Your task to perform on an android device: Open the Play Movies app and select the watchlist tab. Image 0: 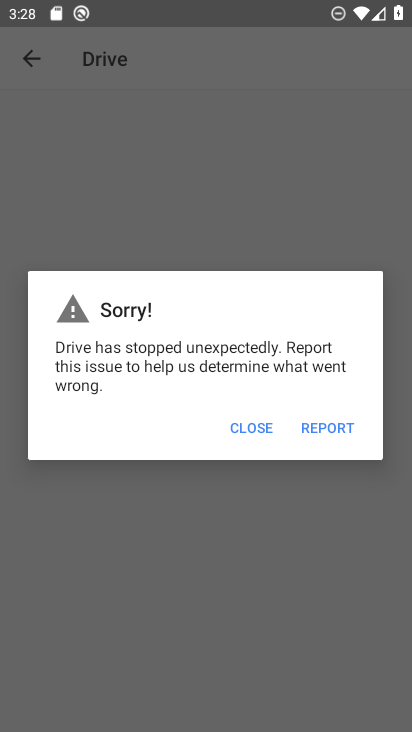
Step 0: press home button
Your task to perform on an android device: Open the Play Movies app and select the watchlist tab. Image 1: 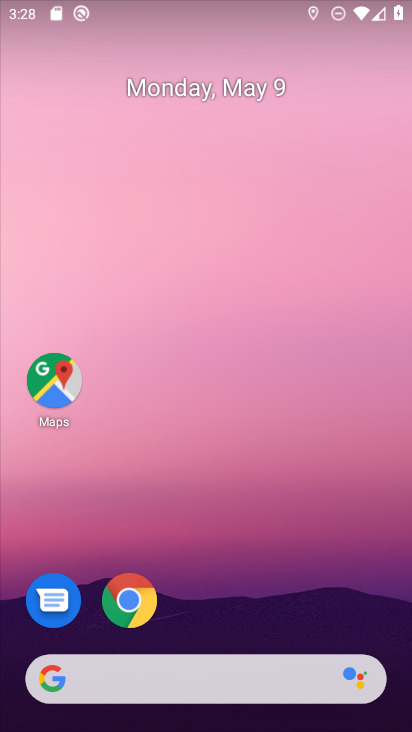
Step 1: drag from (268, 419) to (362, 1)
Your task to perform on an android device: Open the Play Movies app and select the watchlist tab. Image 2: 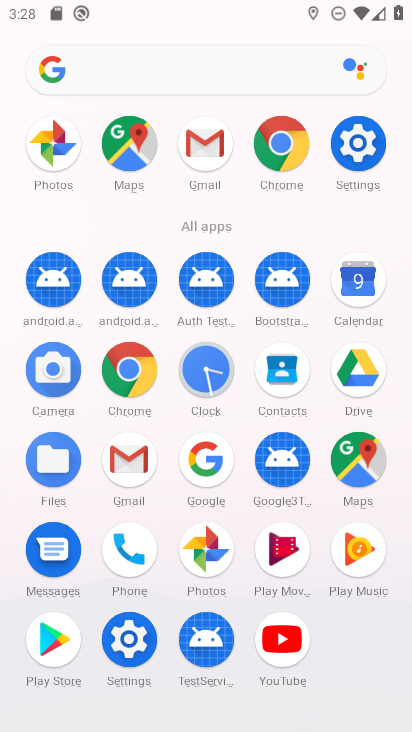
Step 2: click (290, 556)
Your task to perform on an android device: Open the Play Movies app and select the watchlist tab. Image 3: 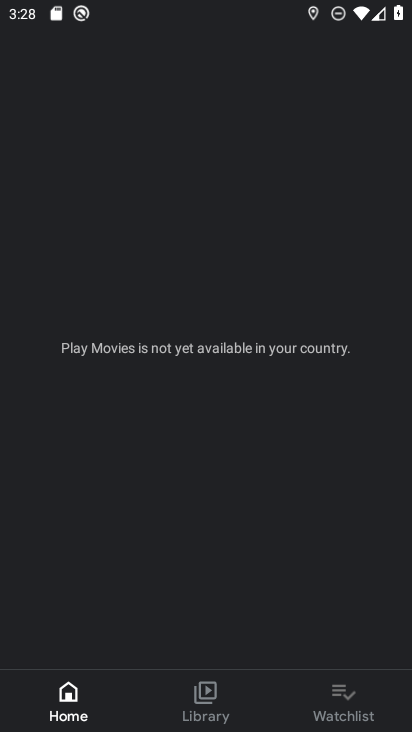
Step 3: task complete